Your task to perform on an android device: Go to eBay Image 0: 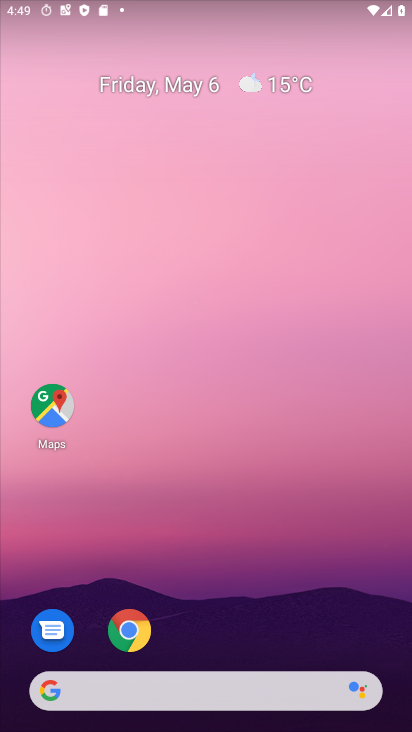
Step 0: click (140, 632)
Your task to perform on an android device: Go to eBay Image 1: 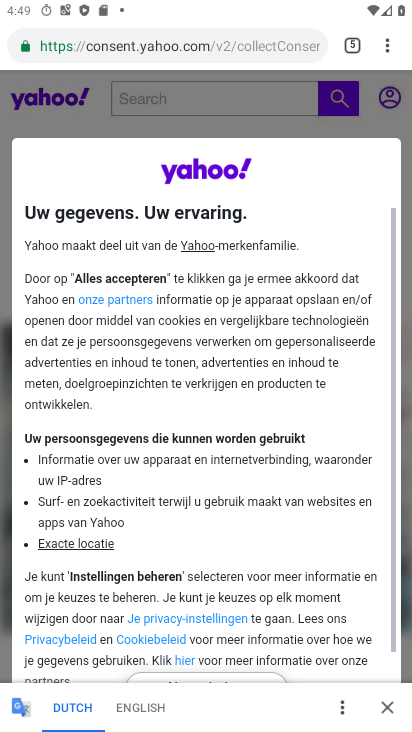
Step 1: click (351, 41)
Your task to perform on an android device: Go to eBay Image 2: 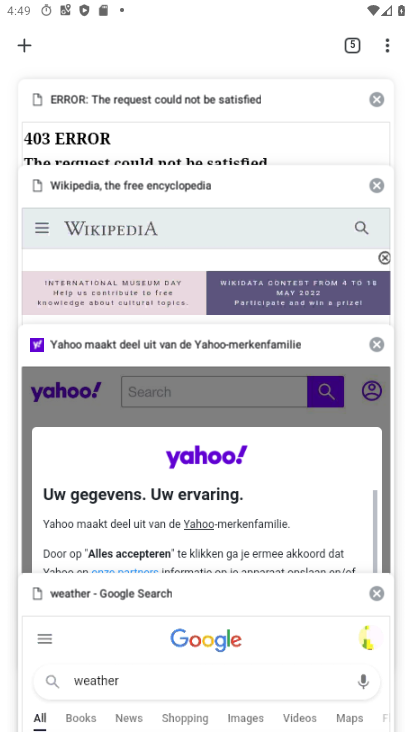
Step 2: click (26, 38)
Your task to perform on an android device: Go to eBay Image 3: 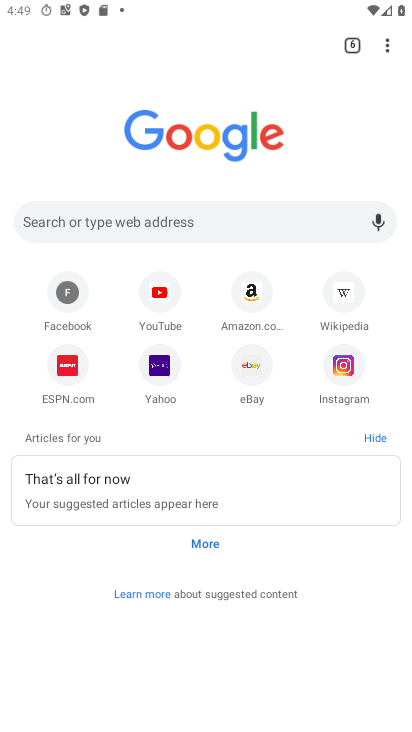
Step 3: click (132, 222)
Your task to perform on an android device: Go to eBay Image 4: 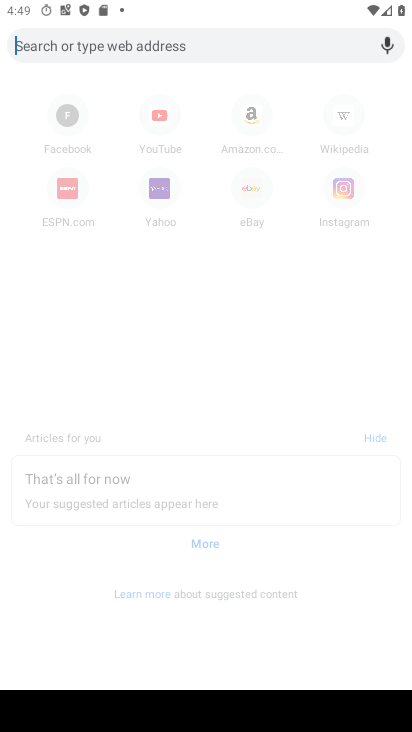
Step 4: type "ebay"
Your task to perform on an android device: Go to eBay Image 5: 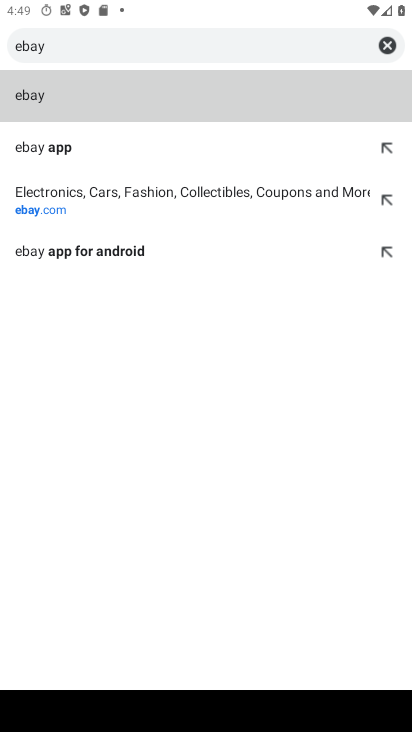
Step 5: click (25, 98)
Your task to perform on an android device: Go to eBay Image 6: 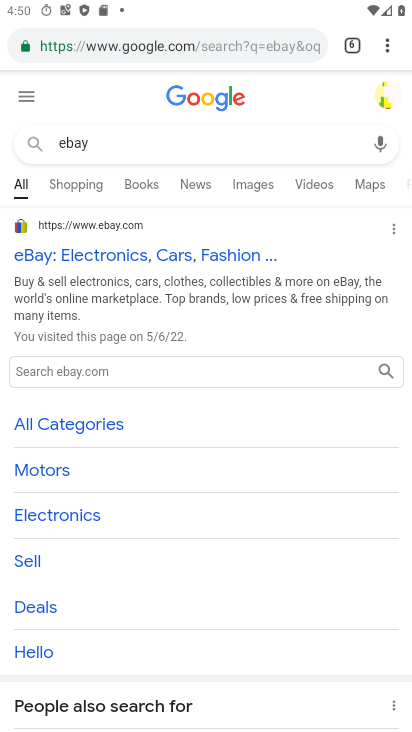
Step 6: click (59, 260)
Your task to perform on an android device: Go to eBay Image 7: 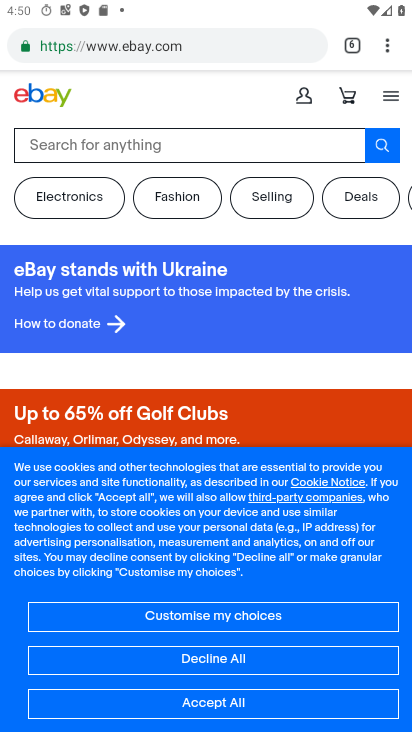
Step 7: task complete